Your task to perform on an android device: What's the weather? Image 0: 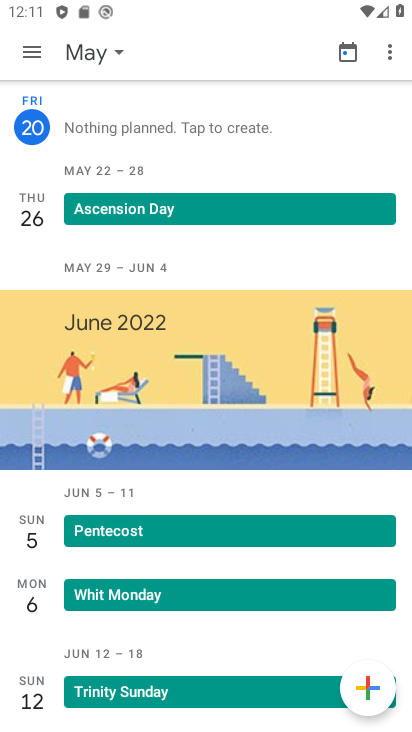
Step 0: press back button
Your task to perform on an android device: What's the weather? Image 1: 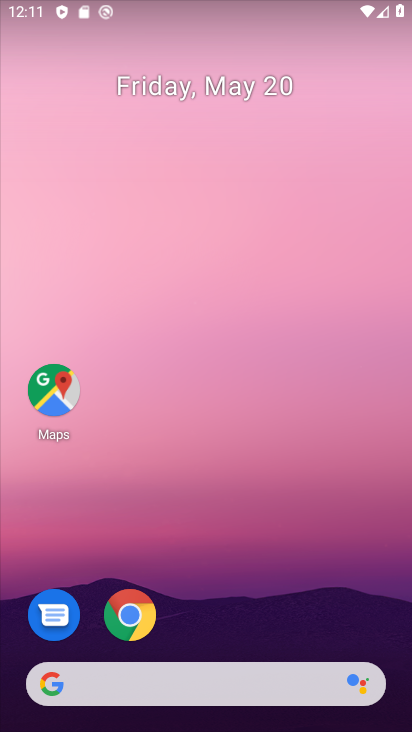
Step 1: drag from (246, 576) to (228, 23)
Your task to perform on an android device: What's the weather? Image 2: 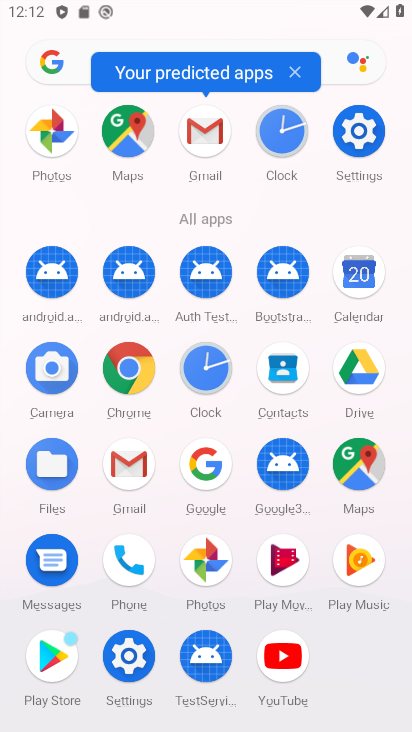
Step 2: click (202, 464)
Your task to perform on an android device: What's the weather? Image 3: 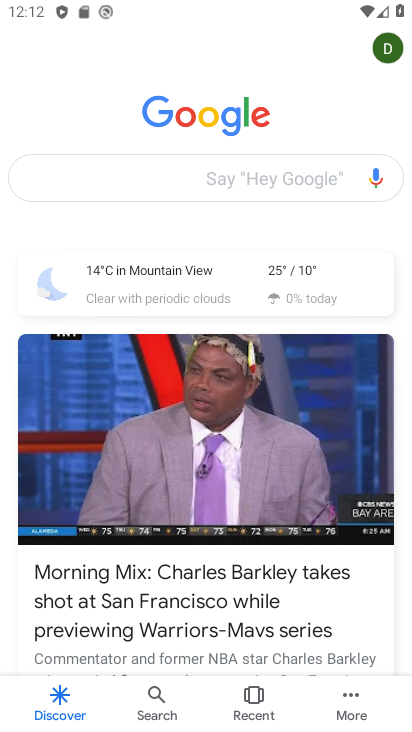
Step 3: click (153, 287)
Your task to perform on an android device: What's the weather? Image 4: 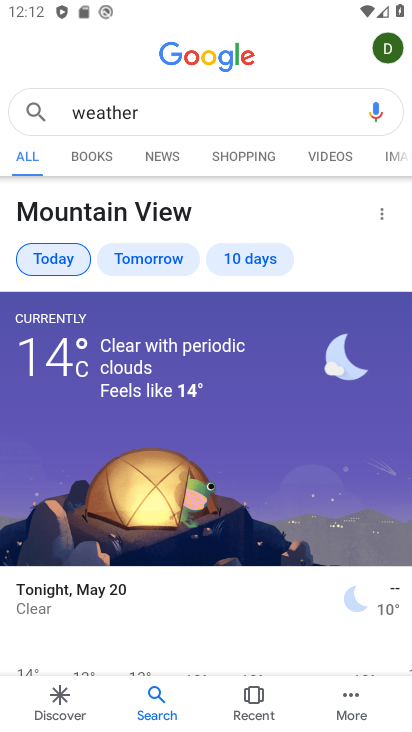
Step 4: task complete